Your task to perform on an android device: Go to Google maps Image 0: 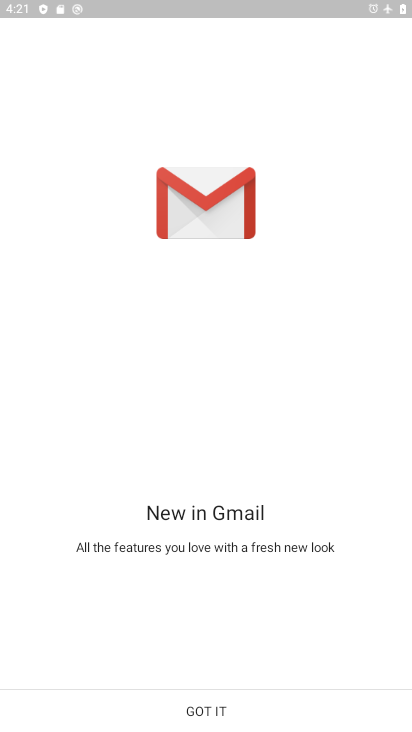
Step 0: press home button
Your task to perform on an android device: Go to Google maps Image 1: 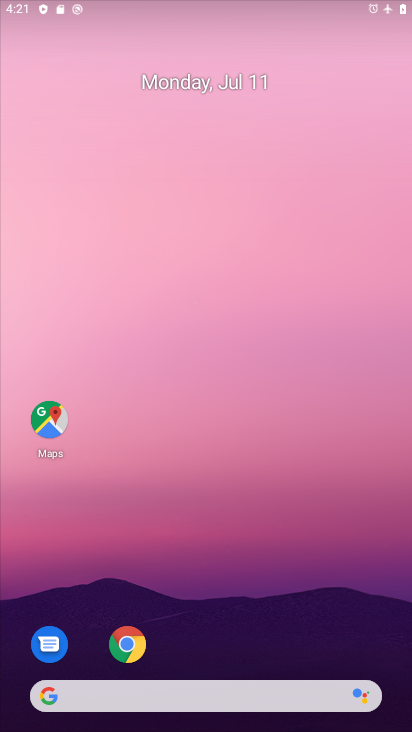
Step 1: drag from (273, 704) to (314, 4)
Your task to perform on an android device: Go to Google maps Image 2: 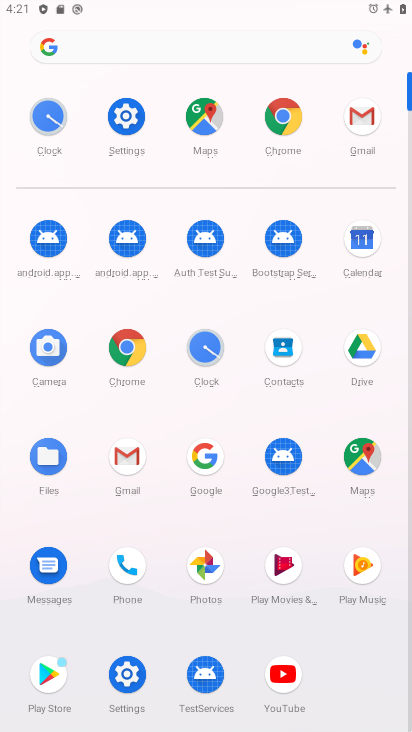
Step 2: click (362, 462)
Your task to perform on an android device: Go to Google maps Image 3: 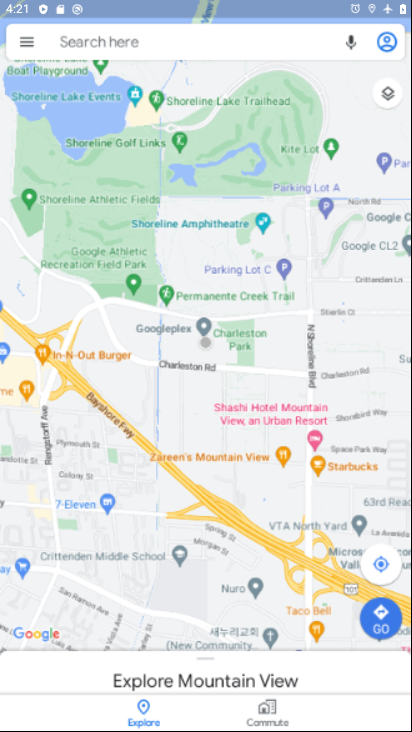
Step 3: task complete